Your task to perform on an android device: turn on improve location accuracy Image 0: 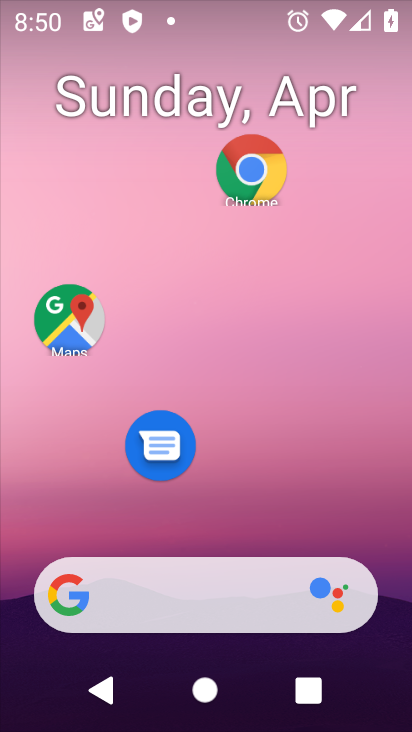
Step 0: drag from (226, 519) to (217, 1)
Your task to perform on an android device: turn on improve location accuracy Image 1: 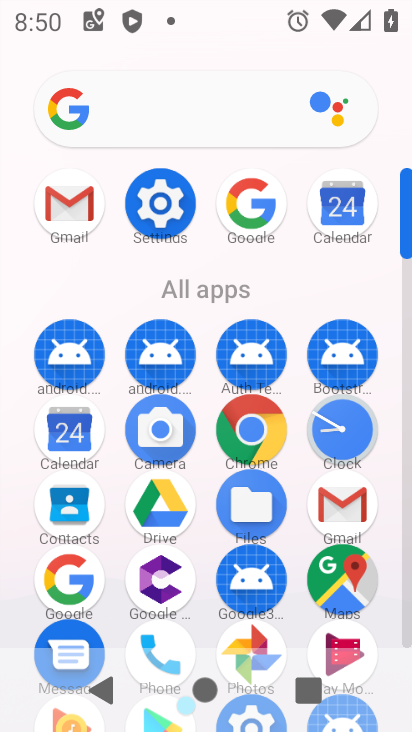
Step 1: click (165, 205)
Your task to perform on an android device: turn on improve location accuracy Image 2: 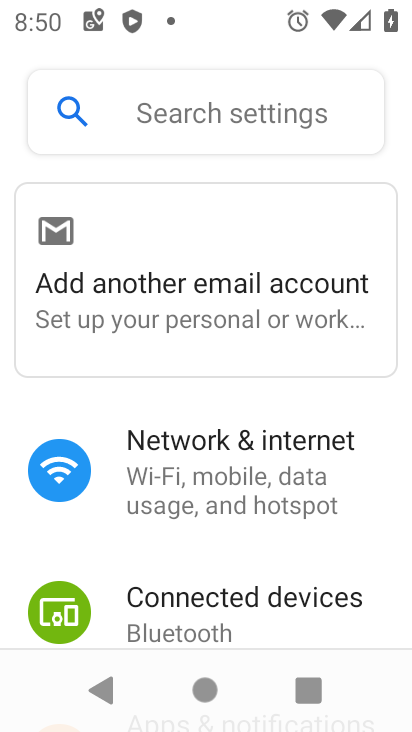
Step 2: drag from (260, 544) to (254, 300)
Your task to perform on an android device: turn on improve location accuracy Image 3: 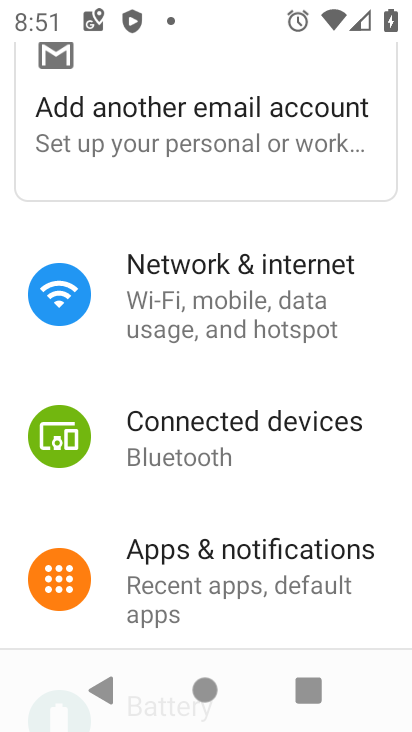
Step 3: drag from (244, 544) to (252, 176)
Your task to perform on an android device: turn on improve location accuracy Image 4: 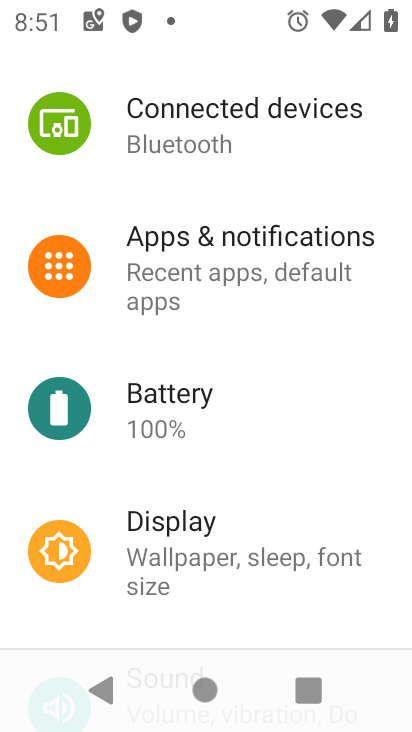
Step 4: drag from (224, 555) to (233, 172)
Your task to perform on an android device: turn on improve location accuracy Image 5: 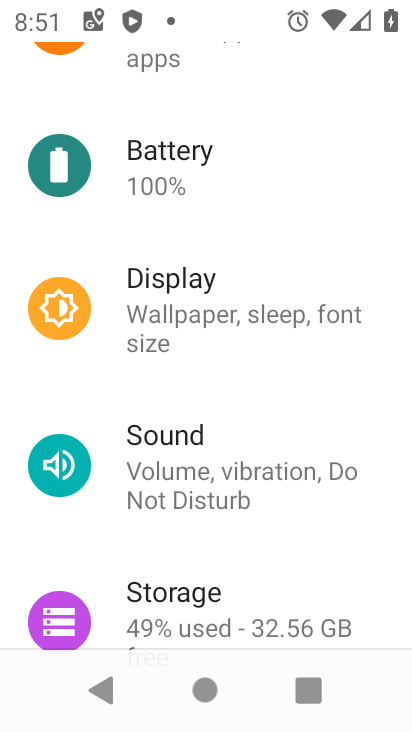
Step 5: drag from (243, 557) to (239, 176)
Your task to perform on an android device: turn on improve location accuracy Image 6: 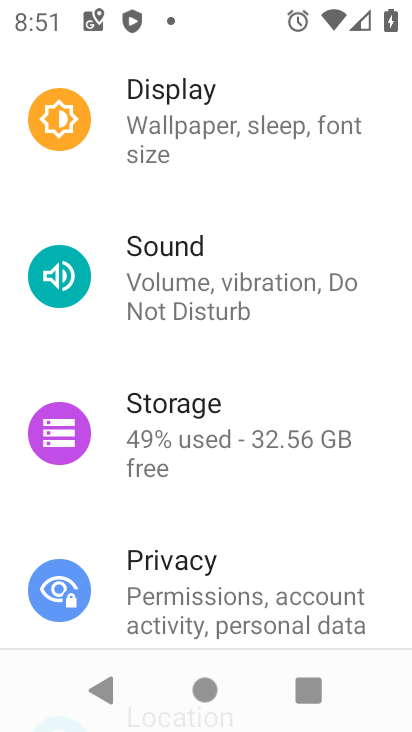
Step 6: drag from (288, 551) to (286, 266)
Your task to perform on an android device: turn on improve location accuracy Image 7: 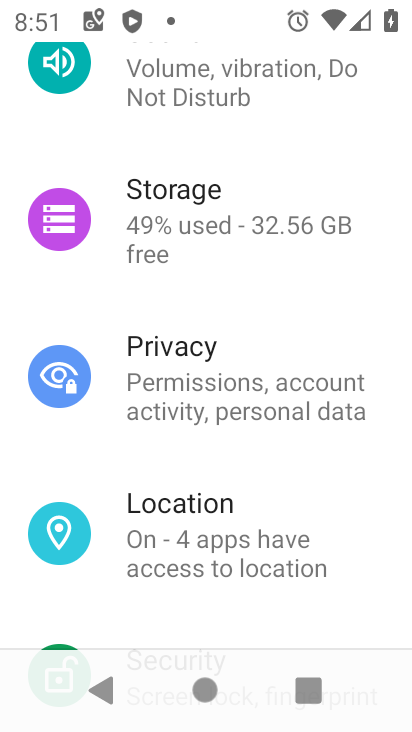
Step 7: click (279, 550)
Your task to perform on an android device: turn on improve location accuracy Image 8: 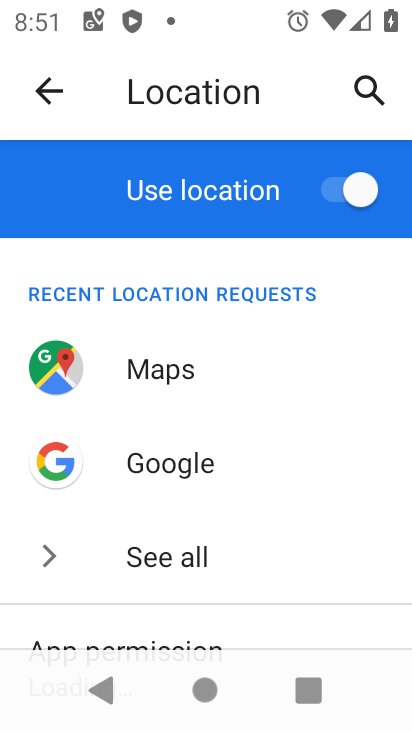
Step 8: drag from (296, 563) to (324, 501)
Your task to perform on an android device: turn on improve location accuracy Image 9: 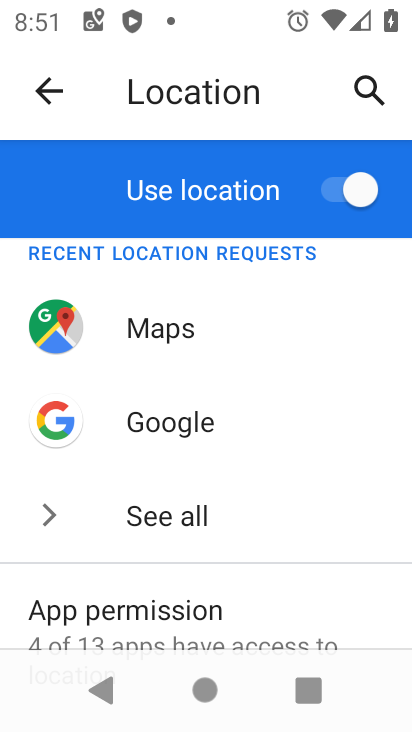
Step 9: drag from (230, 549) to (334, 39)
Your task to perform on an android device: turn on improve location accuracy Image 10: 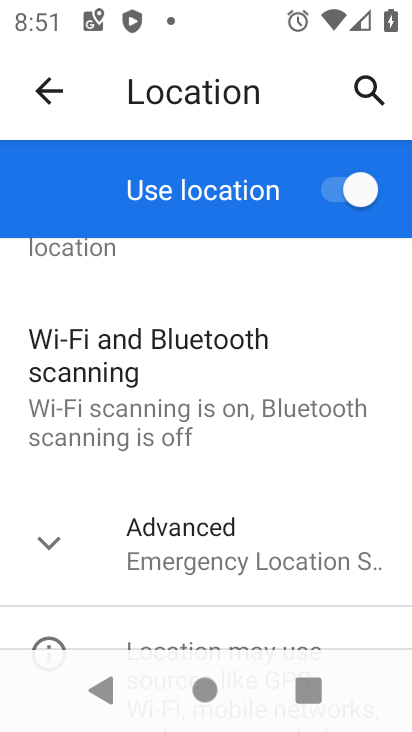
Step 10: click (246, 551)
Your task to perform on an android device: turn on improve location accuracy Image 11: 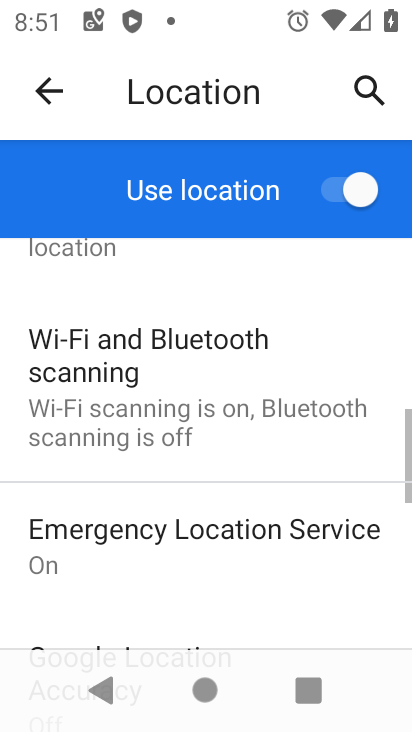
Step 11: drag from (280, 519) to (272, 253)
Your task to perform on an android device: turn on improve location accuracy Image 12: 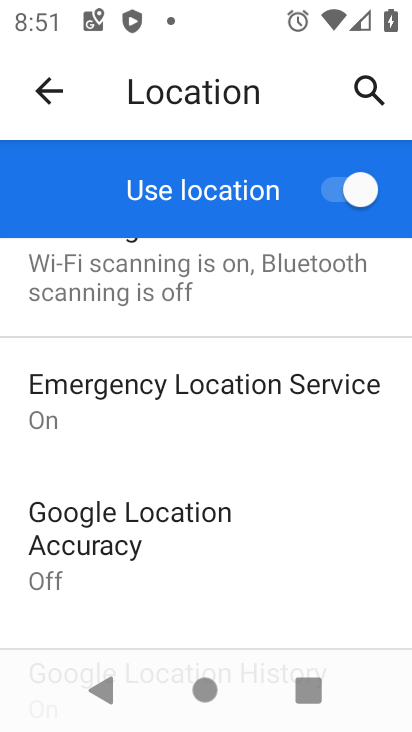
Step 12: click (226, 558)
Your task to perform on an android device: turn on improve location accuracy Image 13: 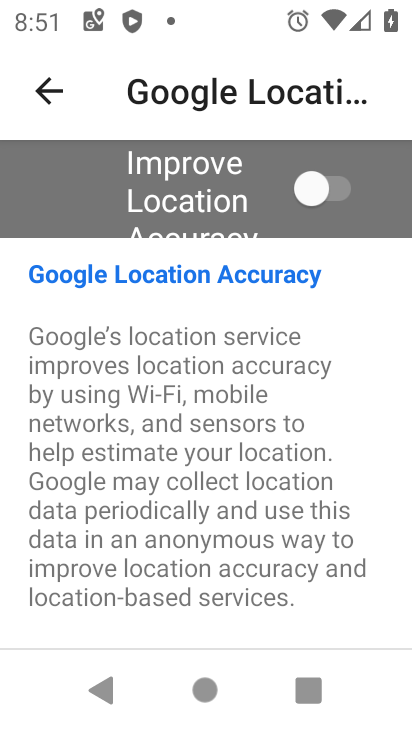
Step 13: click (310, 182)
Your task to perform on an android device: turn on improve location accuracy Image 14: 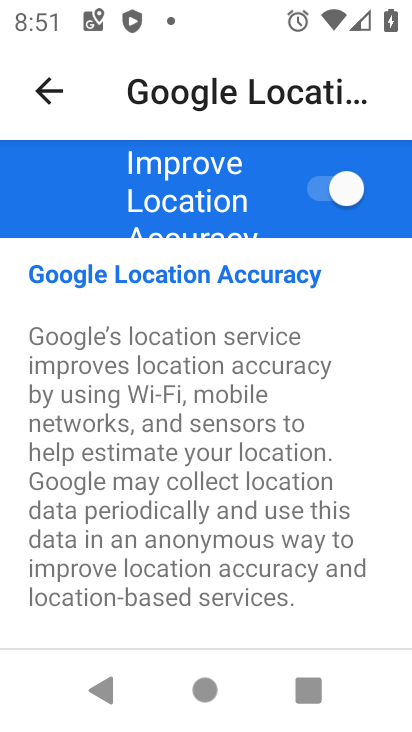
Step 14: task complete